Your task to perform on an android device: Show me popular games on the Play Store Image 0: 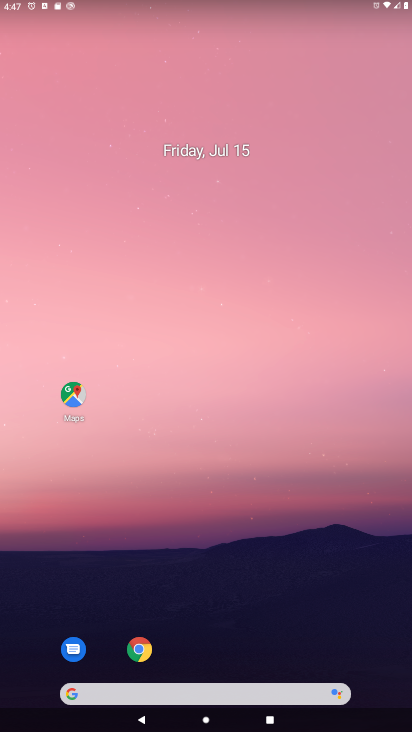
Step 0: drag from (384, 670) to (342, 40)
Your task to perform on an android device: Show me popular games on the Play Store Image 1: 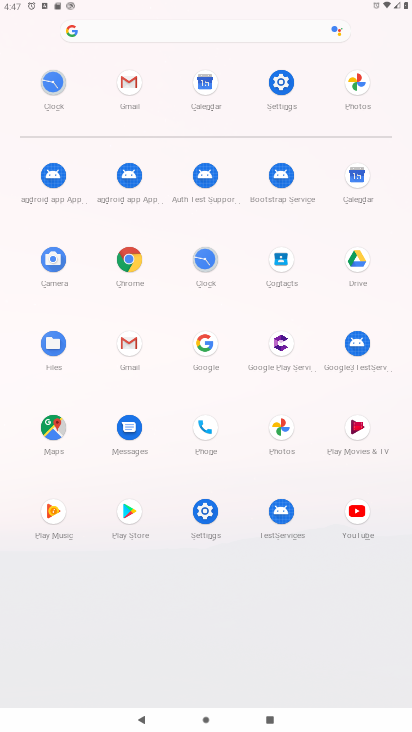
Step 1: click (128, 512)
Your task to perform on an android device: Show me popular games on the Play Store Image 2: 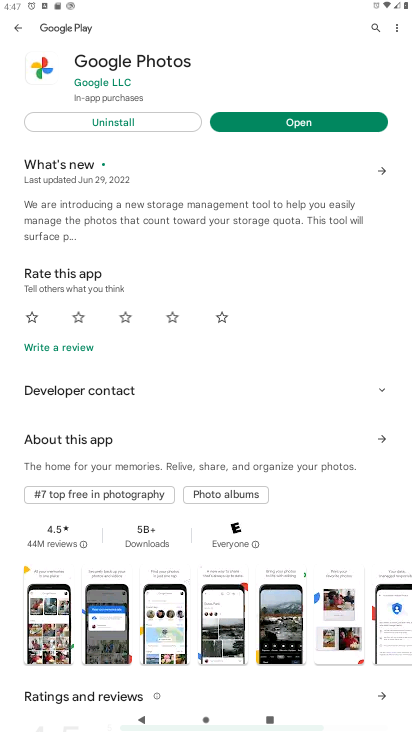
Step 2: press back button
Your task to perform on an android device: Show me popular games on the Play Store Image 3: 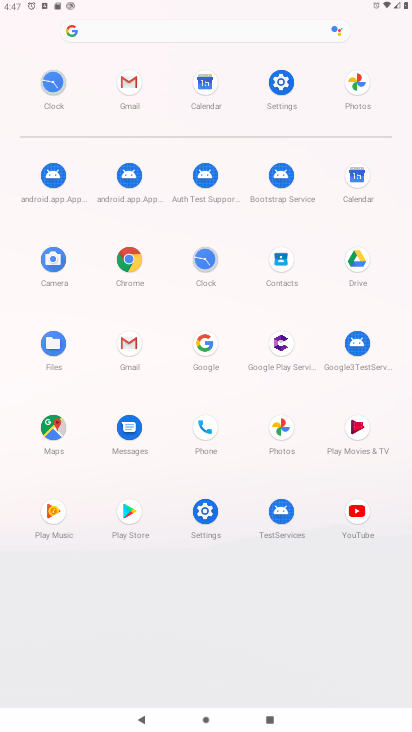
Step 3: click (129, 511)
Your task to perform on an android device: Show me popular games on the Play Store Image 4: 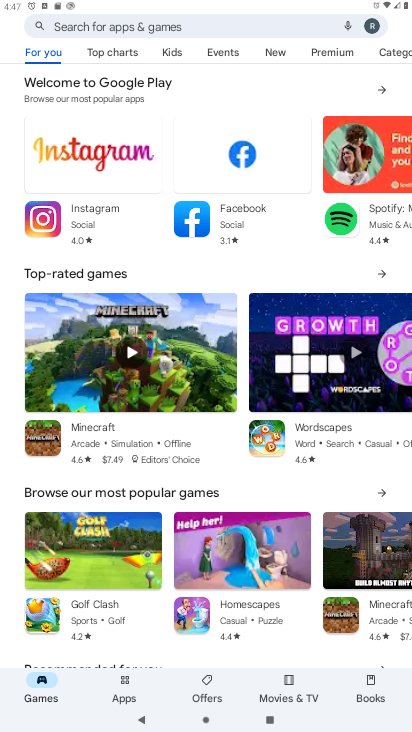
Step 4: click (384, 490)
Your task to perform on an android device: Show me popular games on the Play Store Image 5: 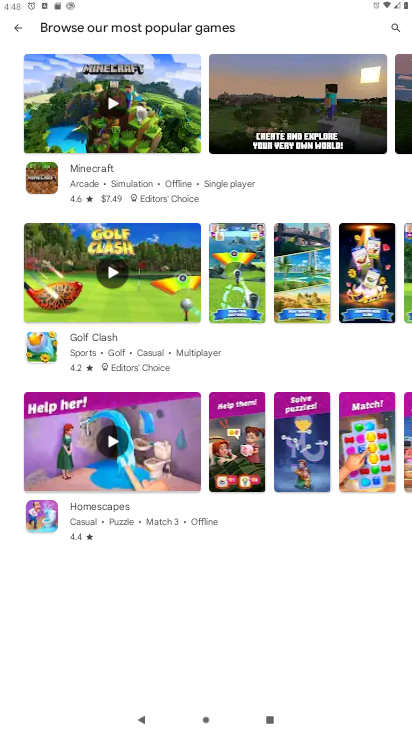
Step 5: task complete